Your task to perform on an android device: refresh tabs in the chrome app Image 0: 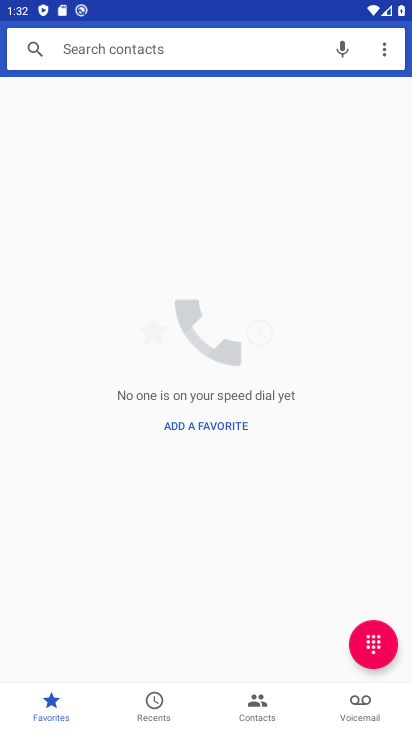
Step 0: press back button
Your task to perform on an android device: refresh tabs in the chrome app Image 1: 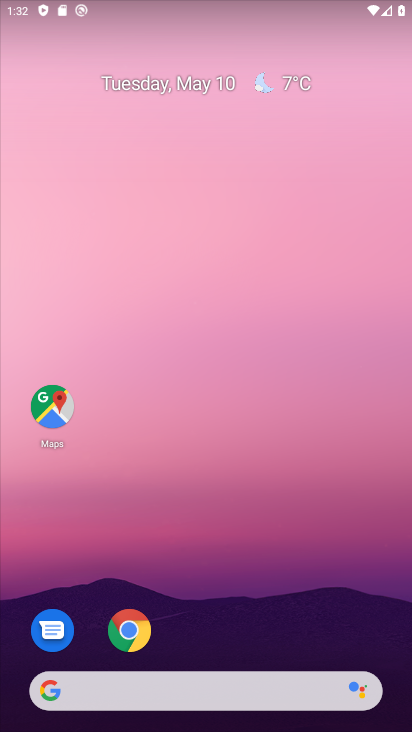
Step 1: drag from (225, 603) to (126, 2)
Your task to perform on an android device: refresh tabs in the chrome app Image 2: 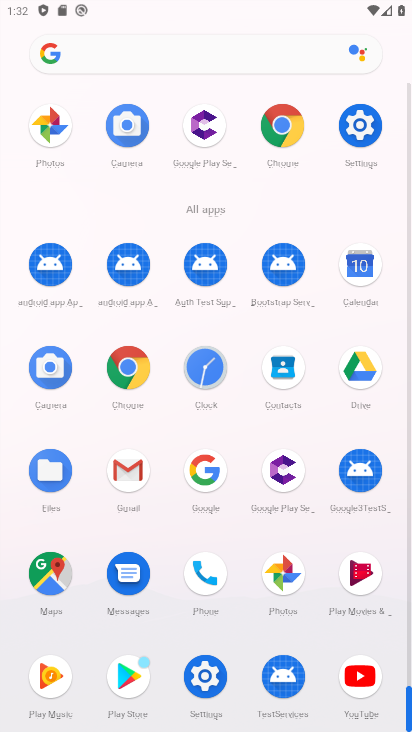
Step 2: drag from (4, 574) to (9, 275)
Your task to perform on an android device: refresh tabs in the chrome app Image 3: 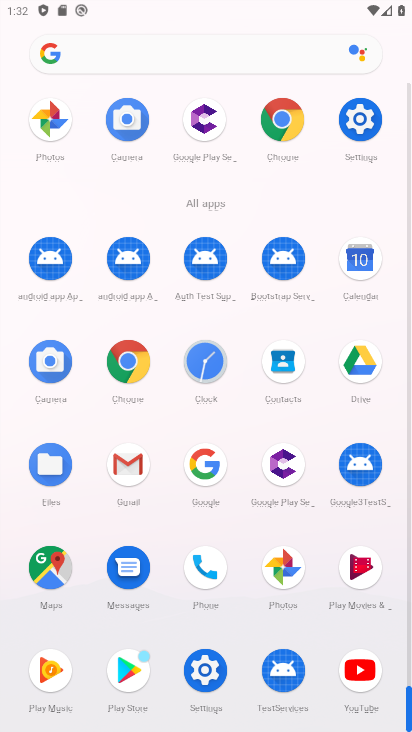
Step 3: click (129, 362)
Your task to perform on an android device: refresh tabs in the chrome app Image 4: 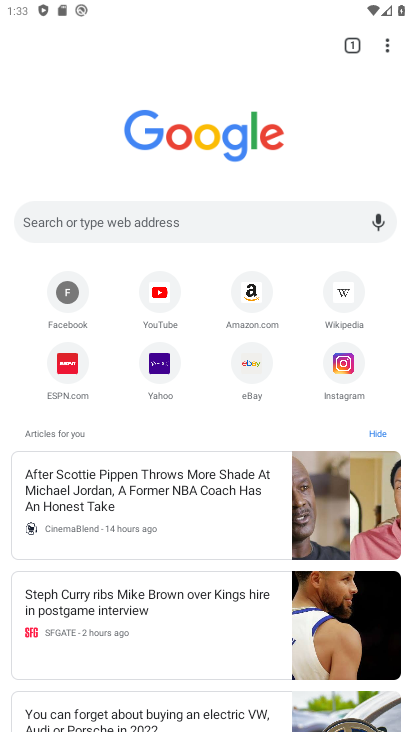
Step 4: click (389, 43)
Your task to perform on an android device: refresh tabs in the chrome app Image 5: 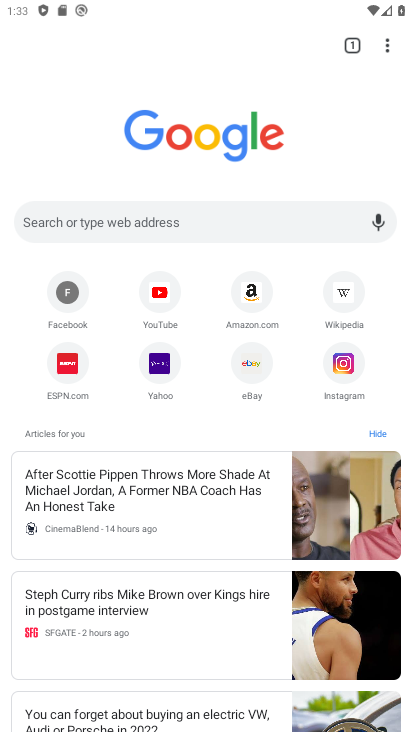
Step 5: task complete